Your task to perform on an android device: Open Yahoo.com Image 0: 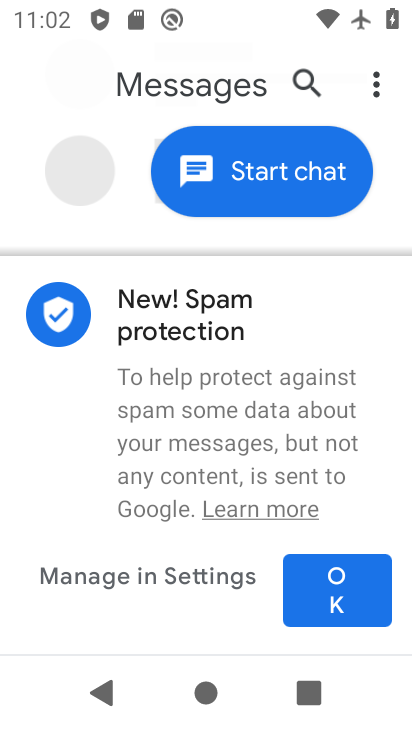
Step 0: press home button
Your task to perform on an android device: Open Yahoo.com Image 1: 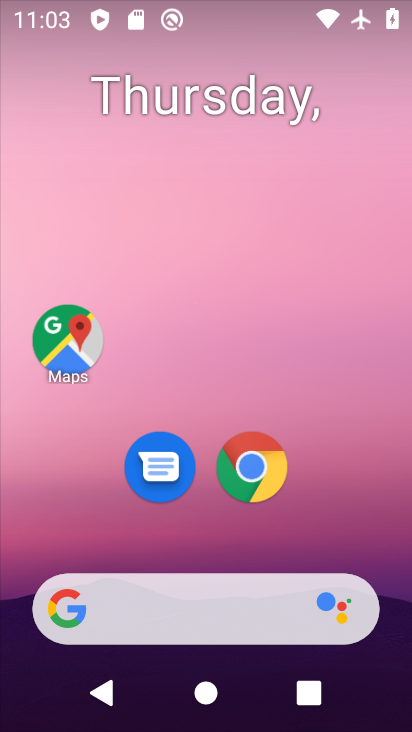
Step 1: click (262, 472)
Your task to perform on an android device: Open Yahoo.com Image 2: 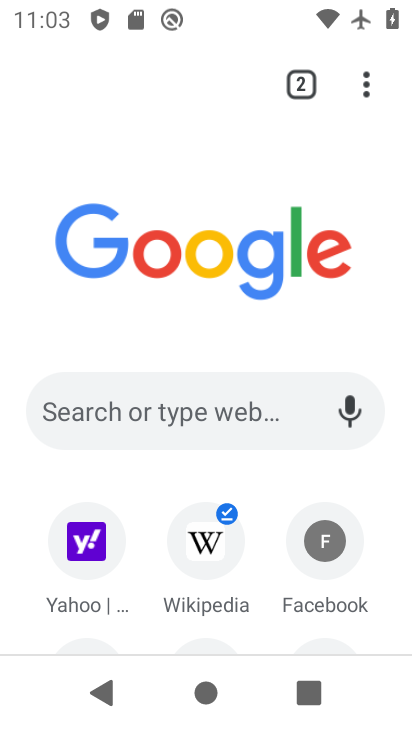
Step 2: click (85, 564)
Your task to perform on an android device: Open Yahoo.com Image 3: 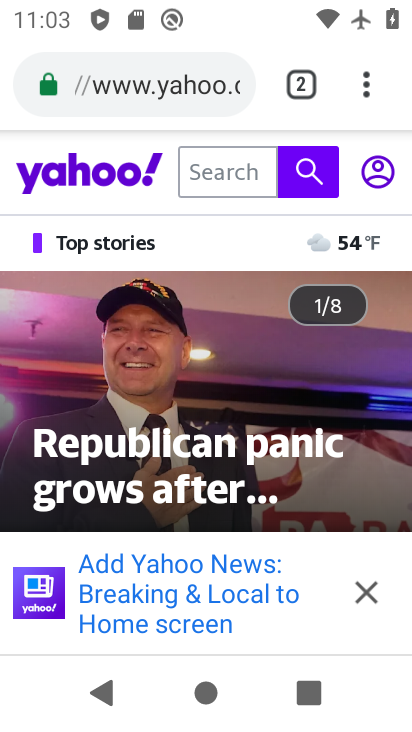
Step 3: task complete